Your task to perform on an android device: turn off location history Image 0: 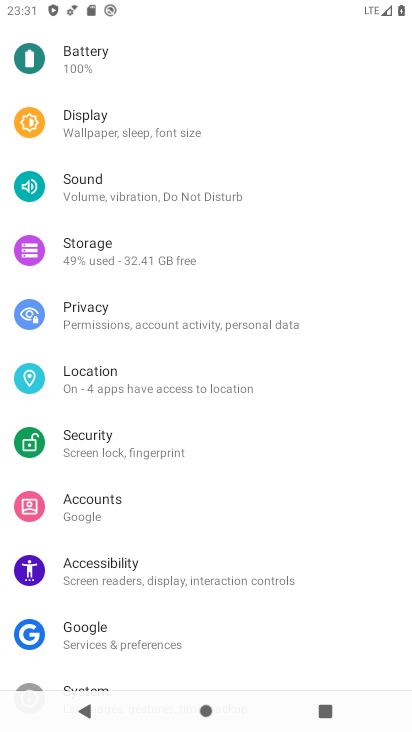
Step 0: drag from (180, 594) to (221, 301)
Your task to perform on an android device: turn off location history Image 1: 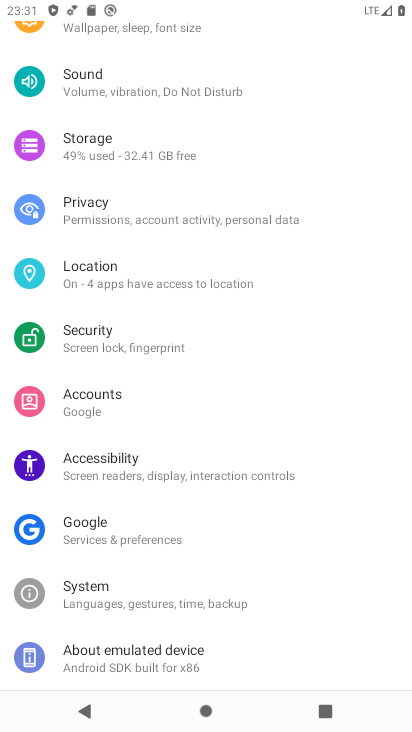
Step 1: click (138, 272)
Your task to perform on an android device: turn off location history Image 2: 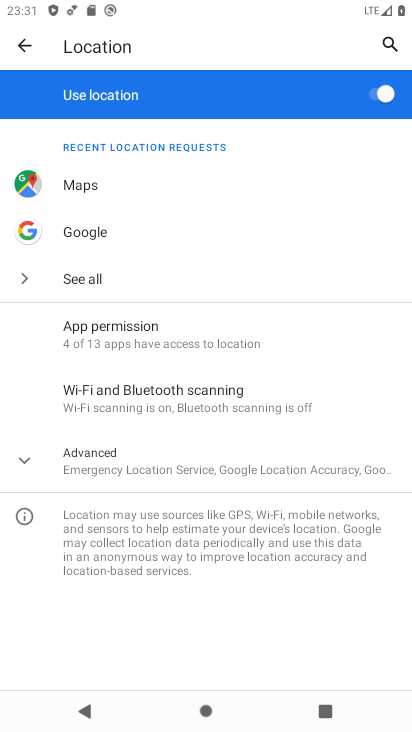
Step 2: click (110, 468)
Your task to perform on an android device: turn off location history Image 3: 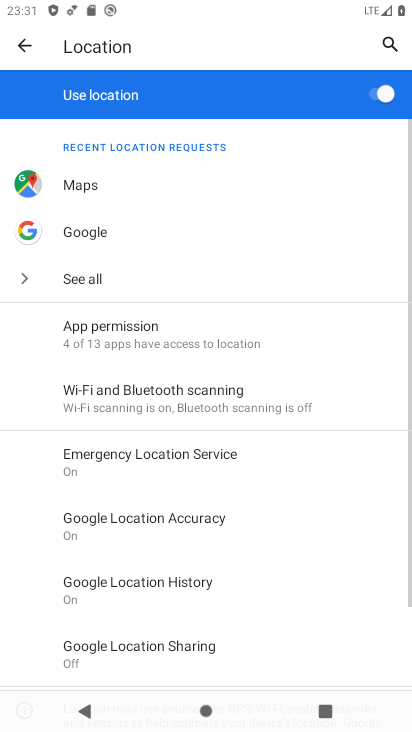
Step 3: click (163, 616)
Your task to perform on an android device: turn off location history Image 4: 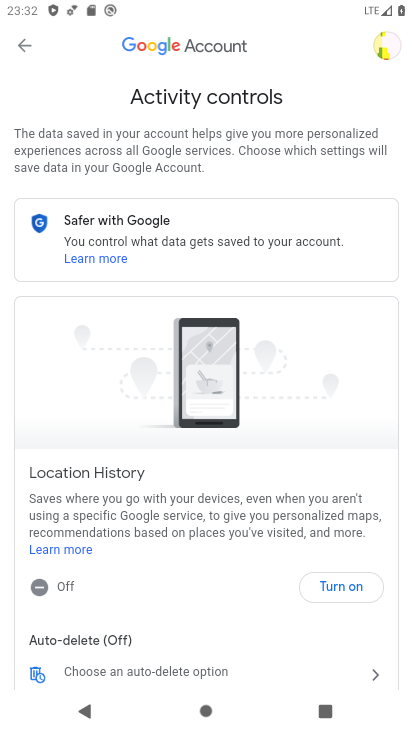
Step 4: click (360, 575)
Your task to perform on an android device: turn off location history Image 5: 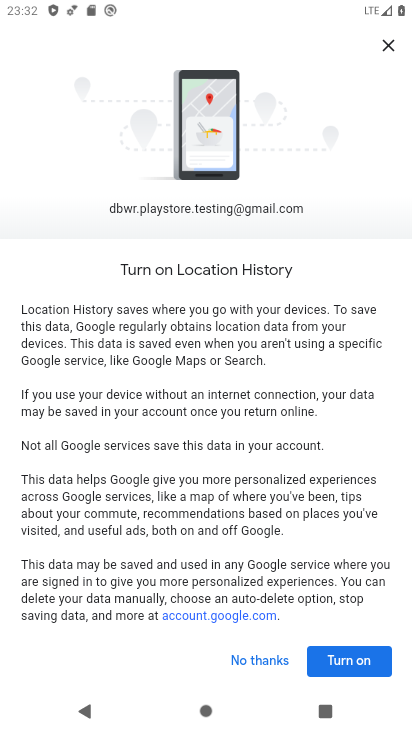
Step 5: click (344, 661)
Your task to perform on an android device: turn off location history Image 6: 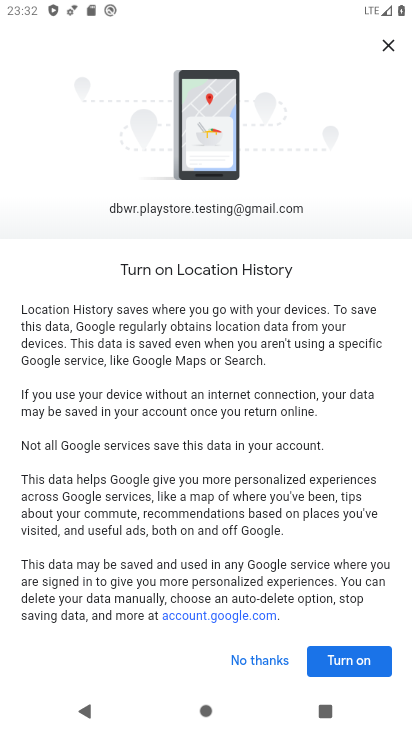
Step 6: task complete